Your task to perform on an android device: Search for "logitech g pro" on target, select the first entry, add it to the cart, then select checkout. Image 0: 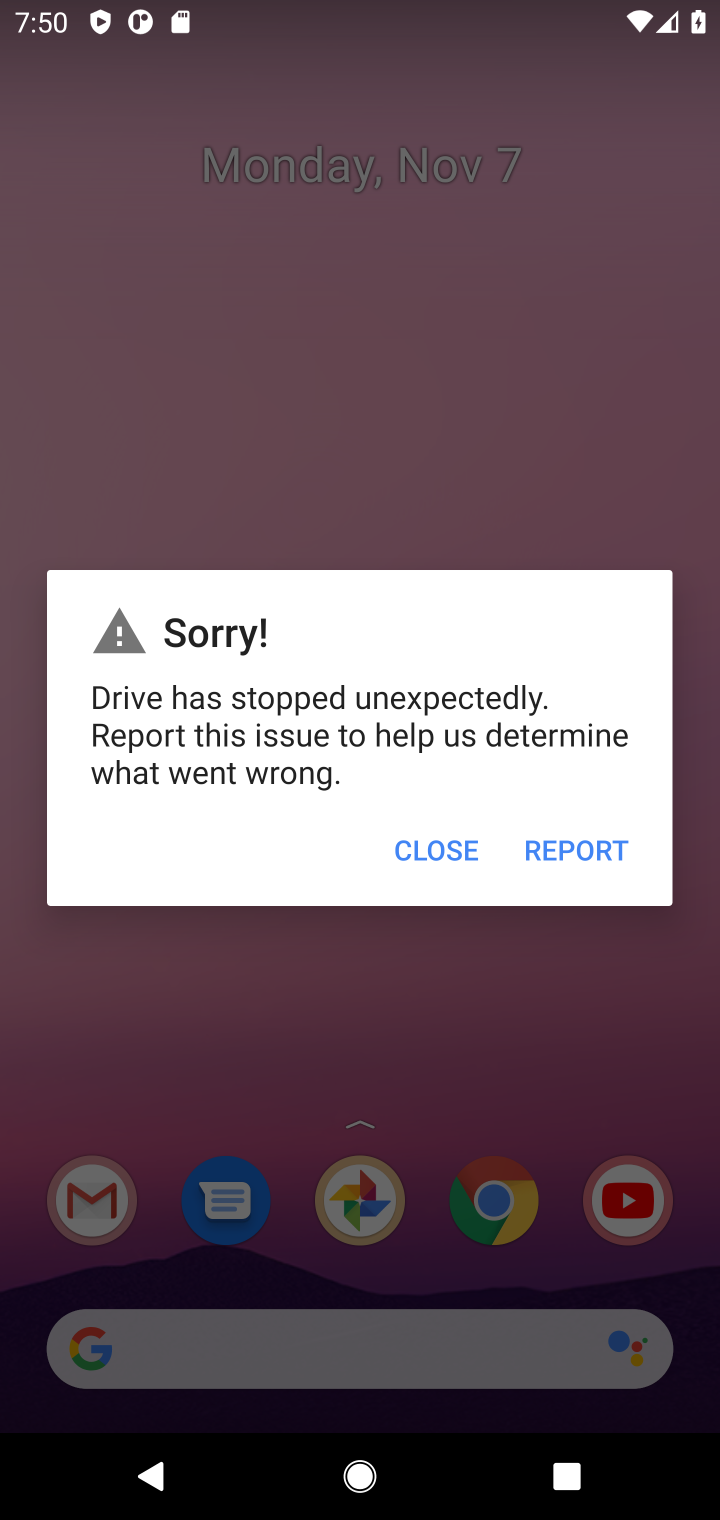
Step 0: press home button
Your task to perform on an android device: Search for "logitech g pro" on target, select the first entry, add it to the cart, then select checkout. Image 1: 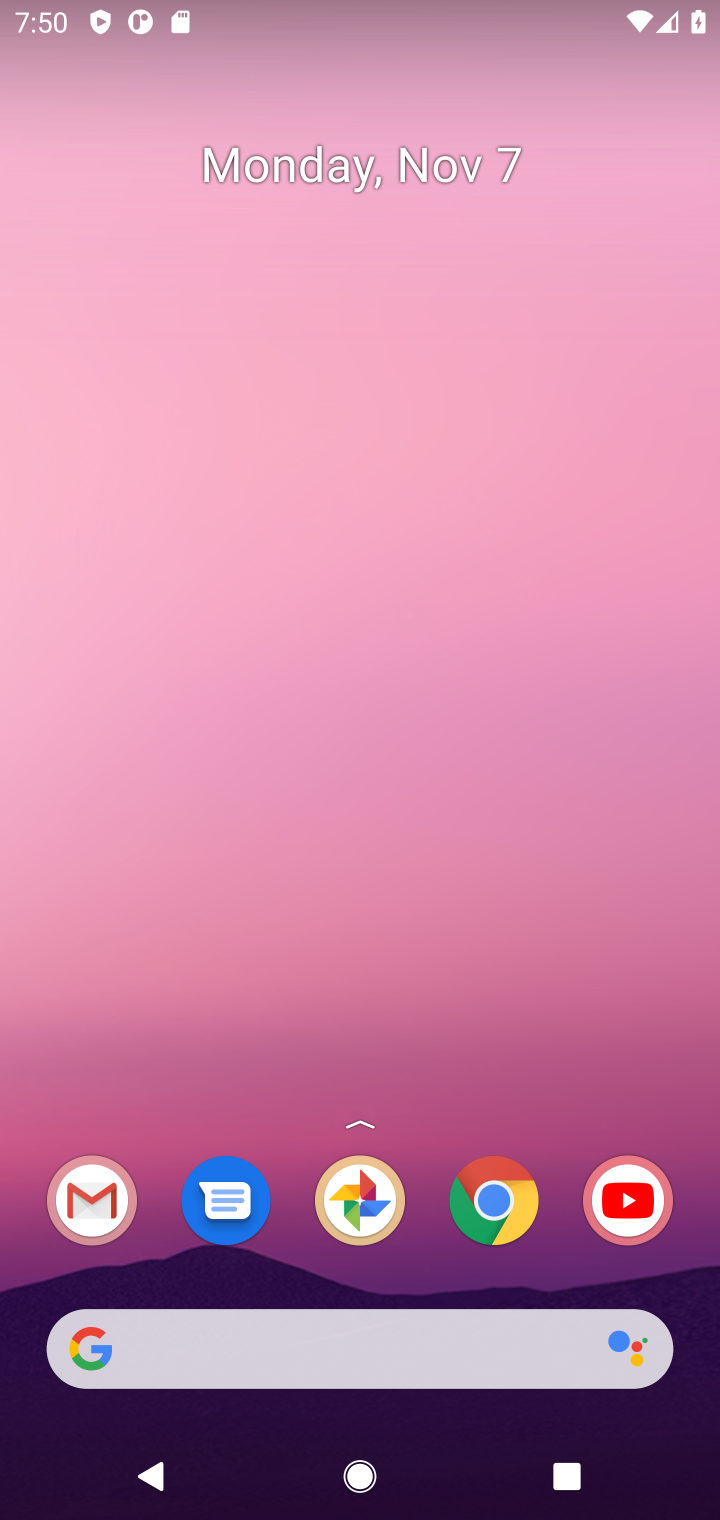
Step 1: click (502, 1205)
Your task to perform on an android device: Search for "logitech g pro" on target, select the first entry, add it to the cart, then select checkout. Image 2: 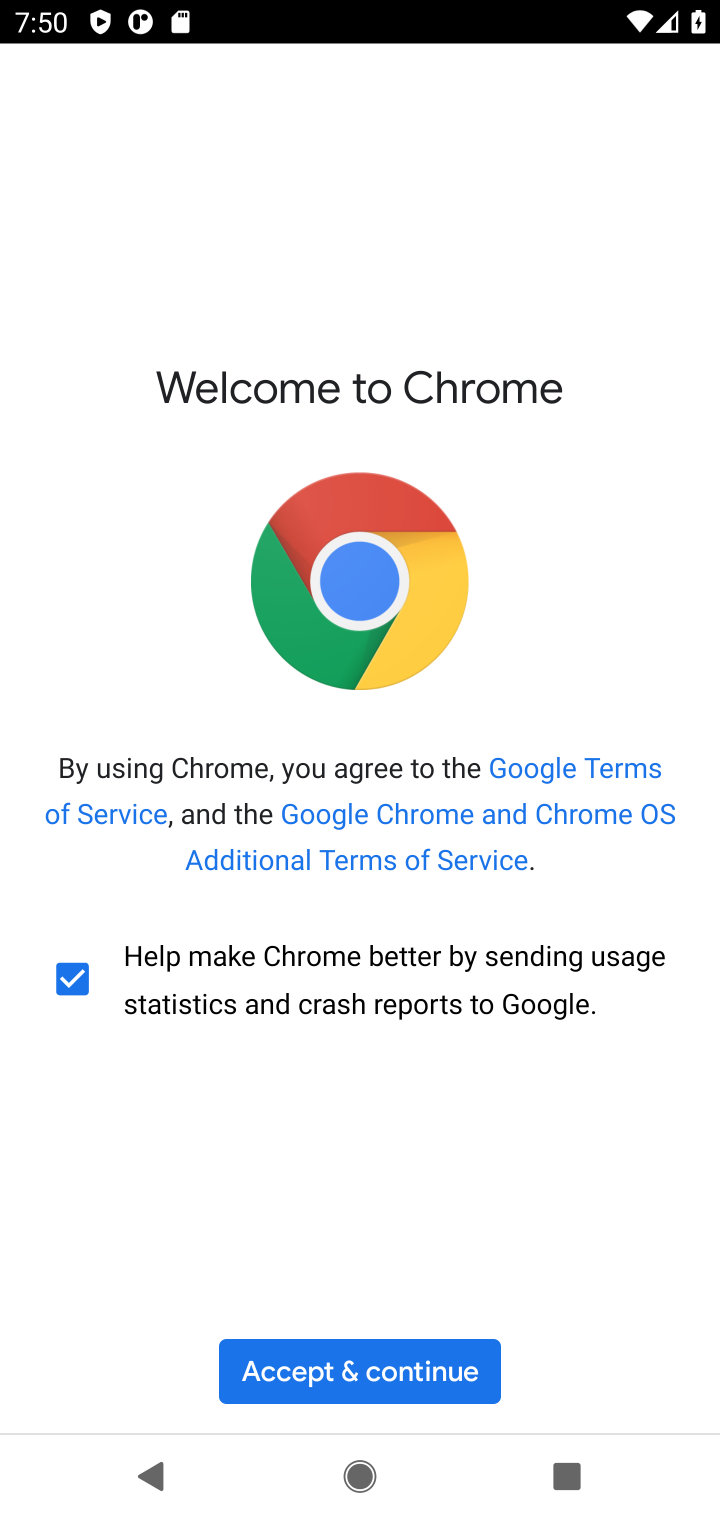
Step 2: click (434, 1372)
Your task to perform on an android device: Search for "logitech g pro" on target, select the first entry, add it to the cart, then select checkout. Image 3: 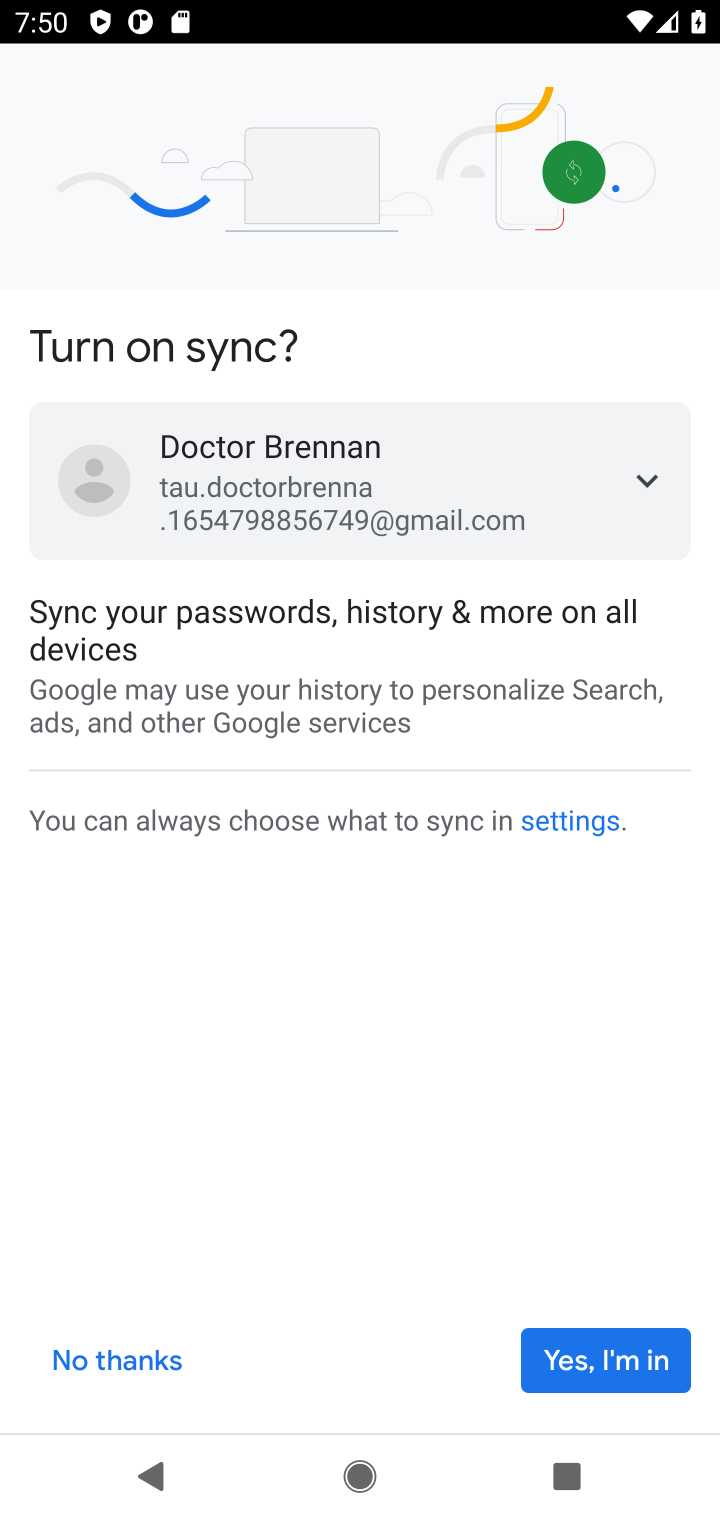
Step 3: click (589, 1365)
Your task to perform on an android device: Search for "logitech g pro" on target, select the first entry, add it to the cart, then select checkout. Image 4: 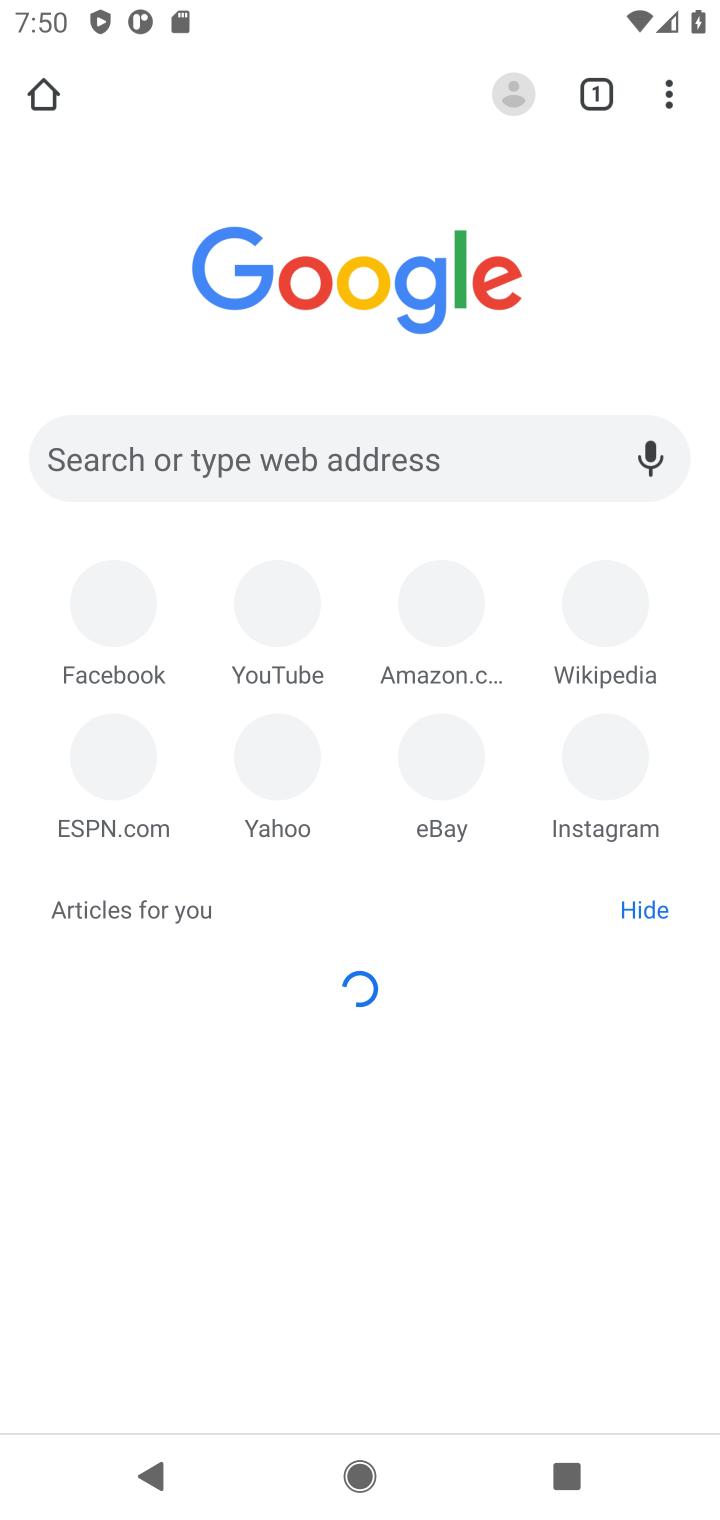
Step 4: click (458, 469)
Your task to perform on an android device: Search for "logitech g pro" on target, select the first entry, add it to the cart, then select checkout. Image 5: 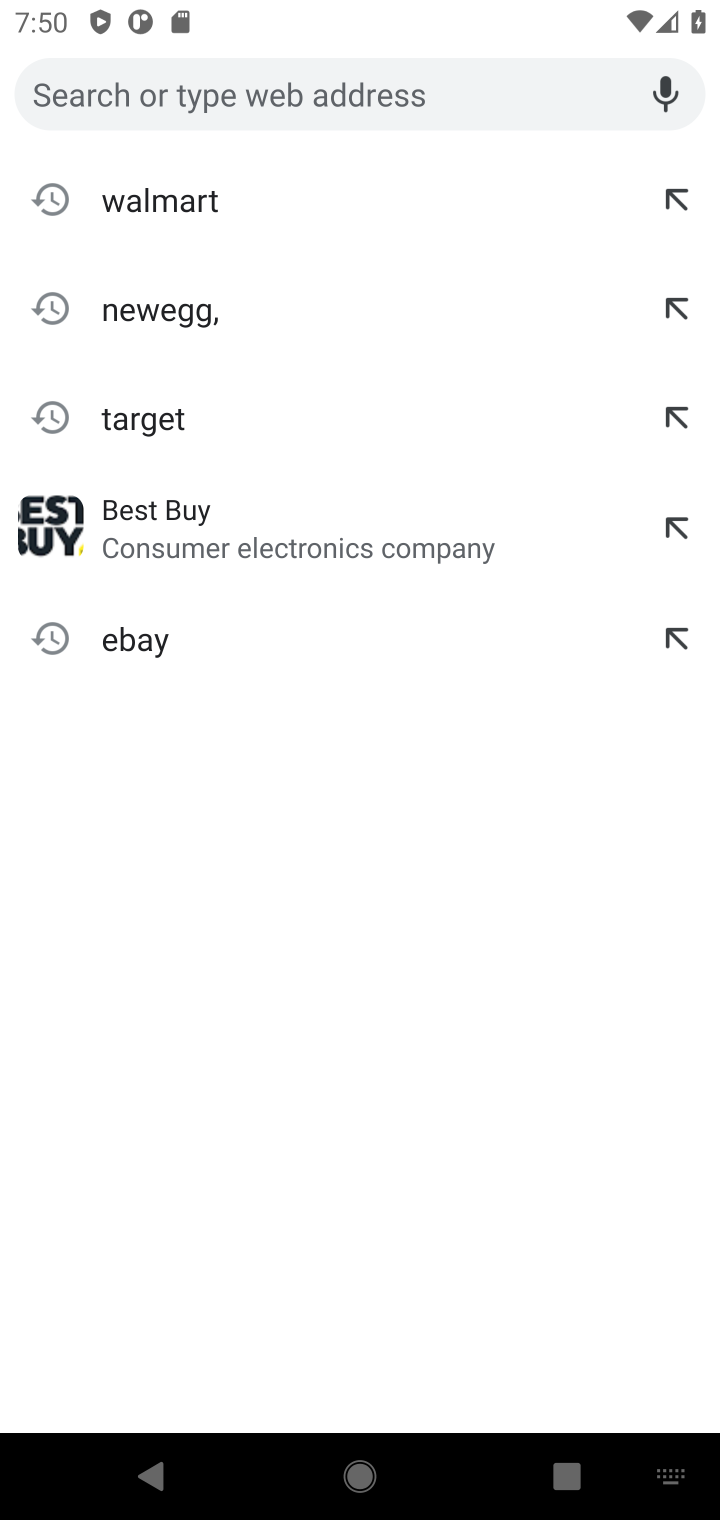
Step 5: click (133, 411)
Your task to perform on an android device: Search for "logitech g pro" on target, select the first entry, add it to the cart, then select checkout. Image 6: 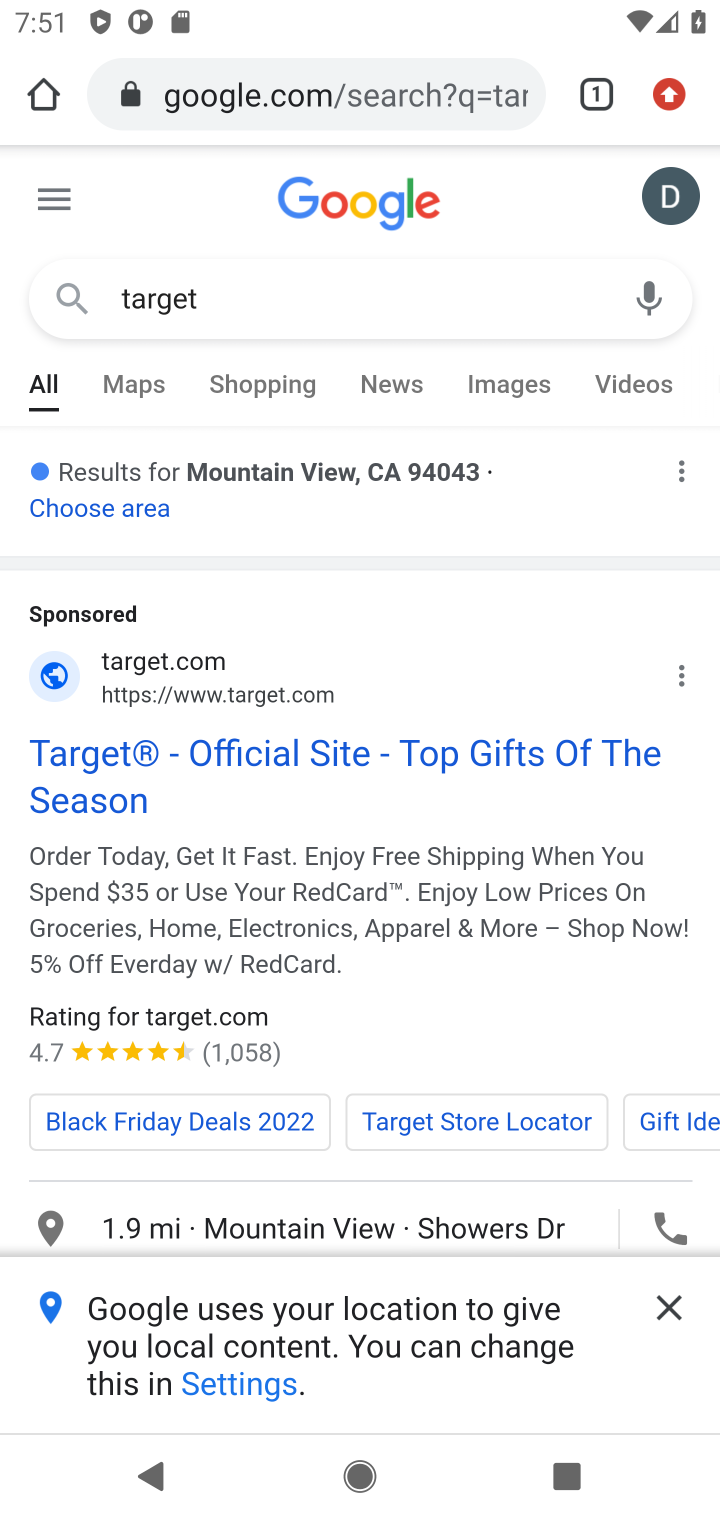
Step 6: click (177, 768)
Your task to perform on an android device: Search for "logitech g pro" on target, select the first entry, add it to the cart, then select checkout. Image 7: 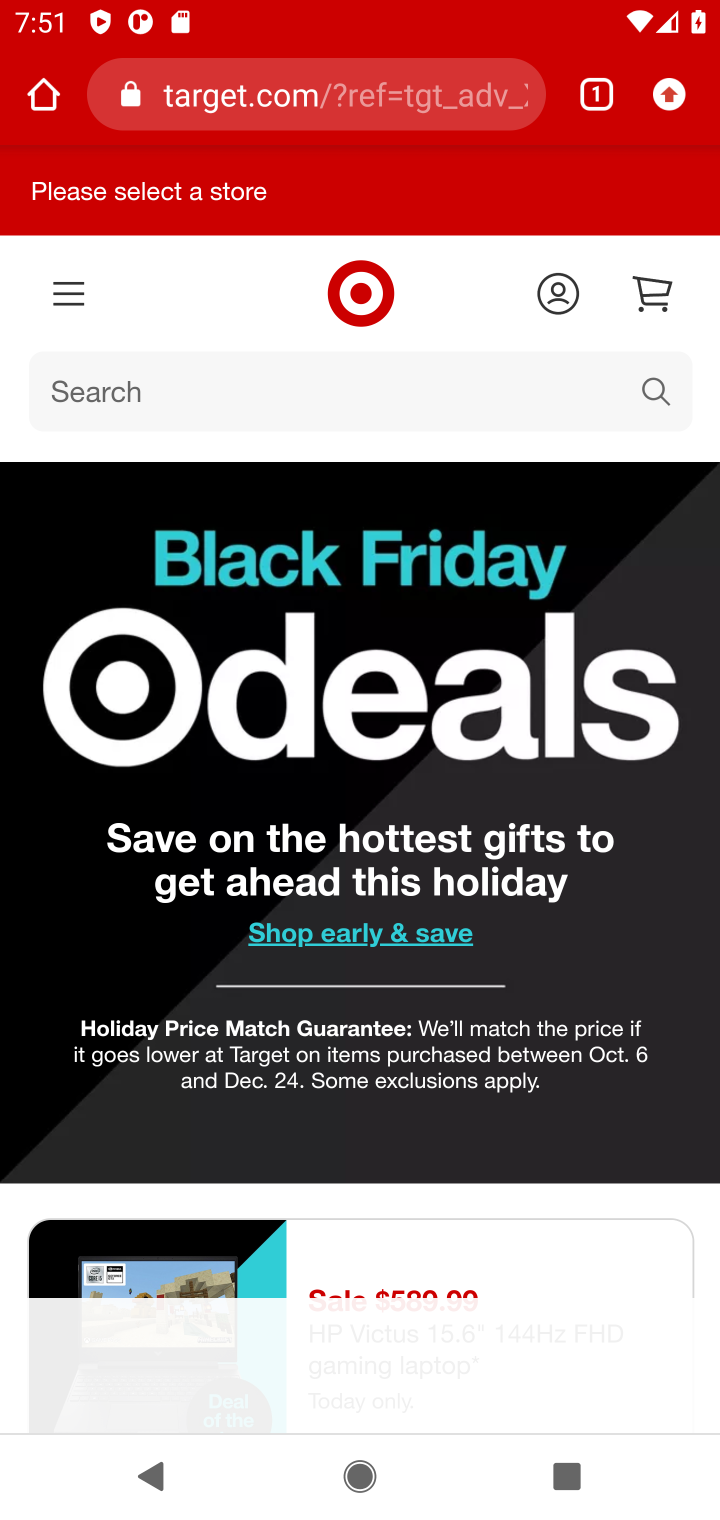
Step 7: click (281, 398)
Your task to perform on an android device: Search for "logitech g pro" on target, select the first entry, add it to the cart, then select checkout. Image 8: 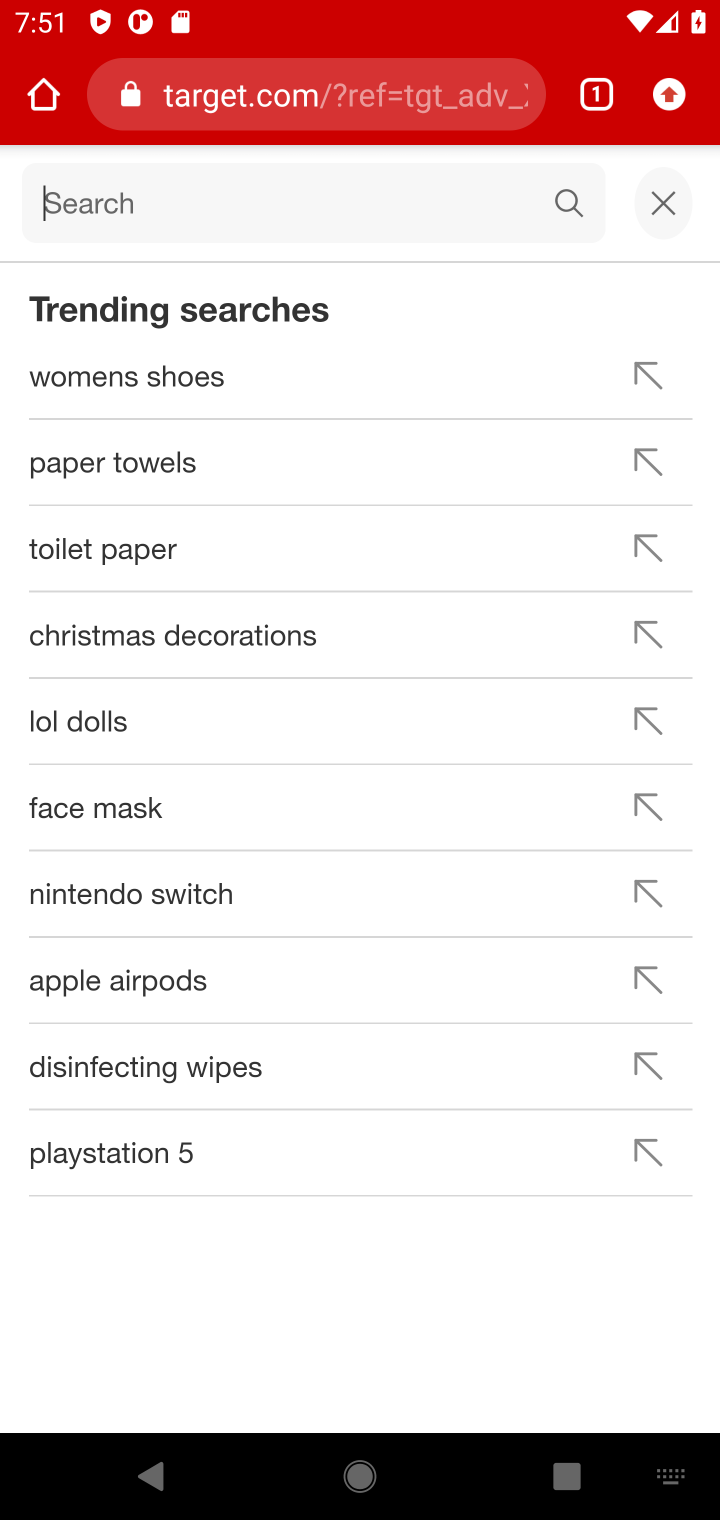
Step 8: type "logitech g pro"
Your task to perform on an android device: Search for "logitech g pro" on target, select the first entry, add it to the cart, then select checkout. Image 9: 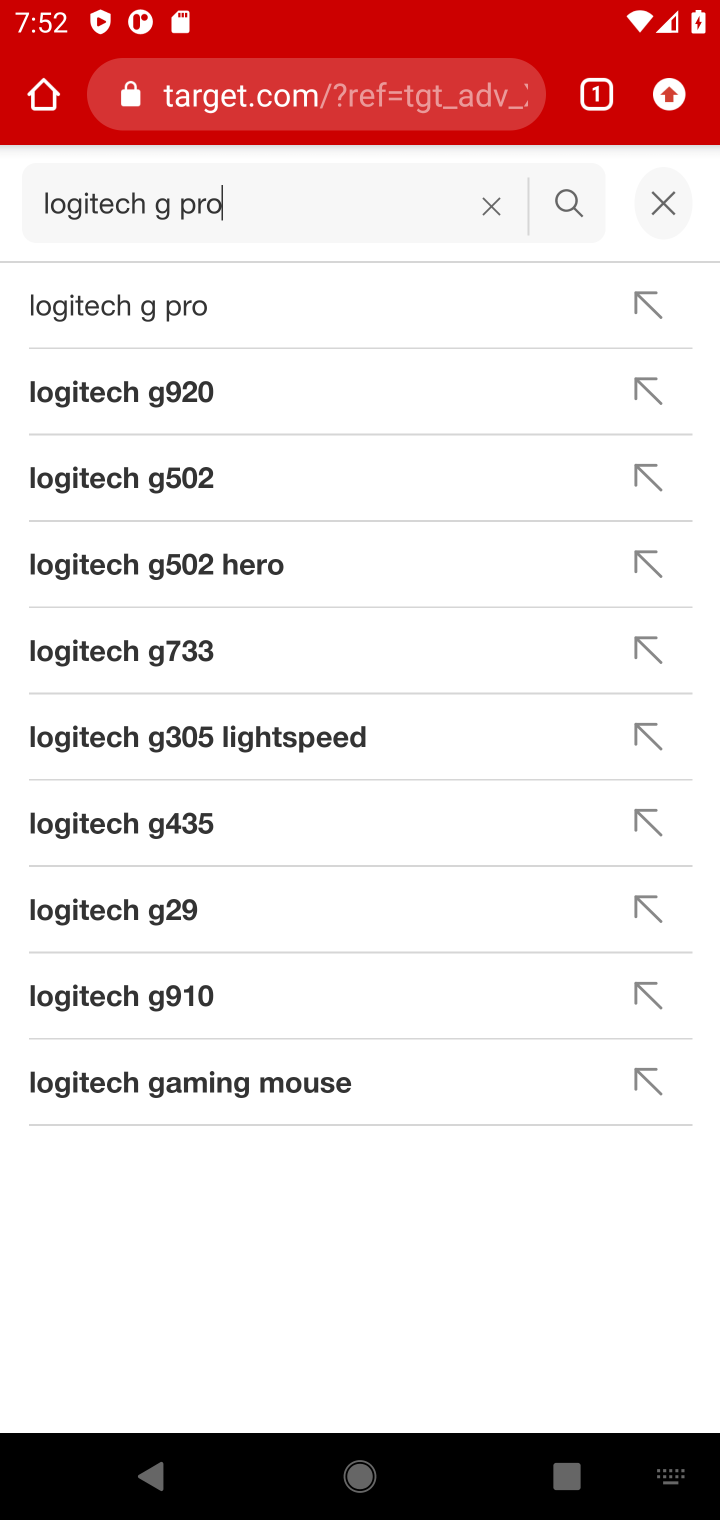
Step 9: press enter
Your task to perform on an android device: Search for "logitech g pro" on target, select the first entry, add it to the cart, then select checkout. Image 10: 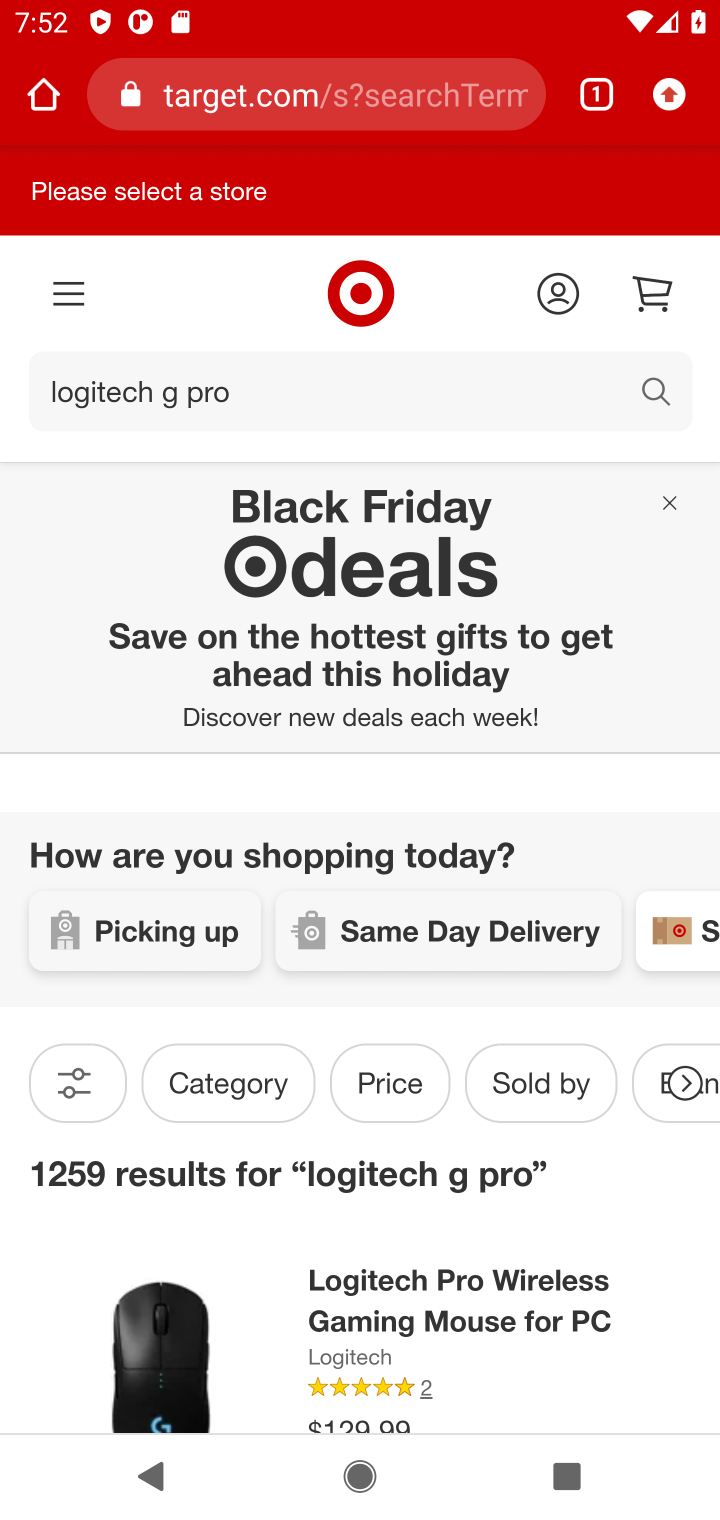
Step 10: click (432, 1305)
Your task to perform on an android device: Search for "logitech g pro" on target, select the first entry, add it to the cart, then select checkout. Image 11: 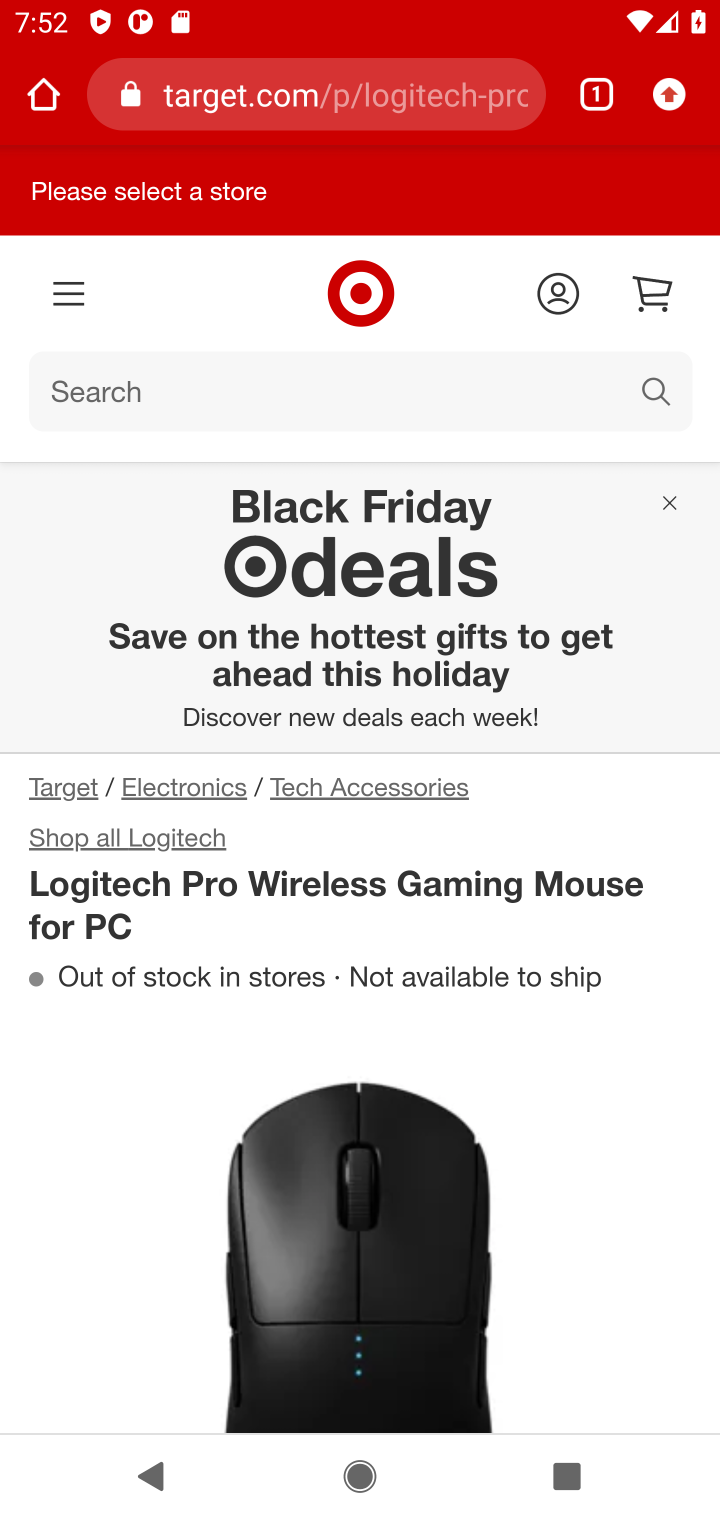
Step 11: drag from (653, 887) to (648, 386)
Your task to perform on an android device: Search for "logitech g pro" on target, select the first entry, add it to the cart, then select checkout. Image 12: 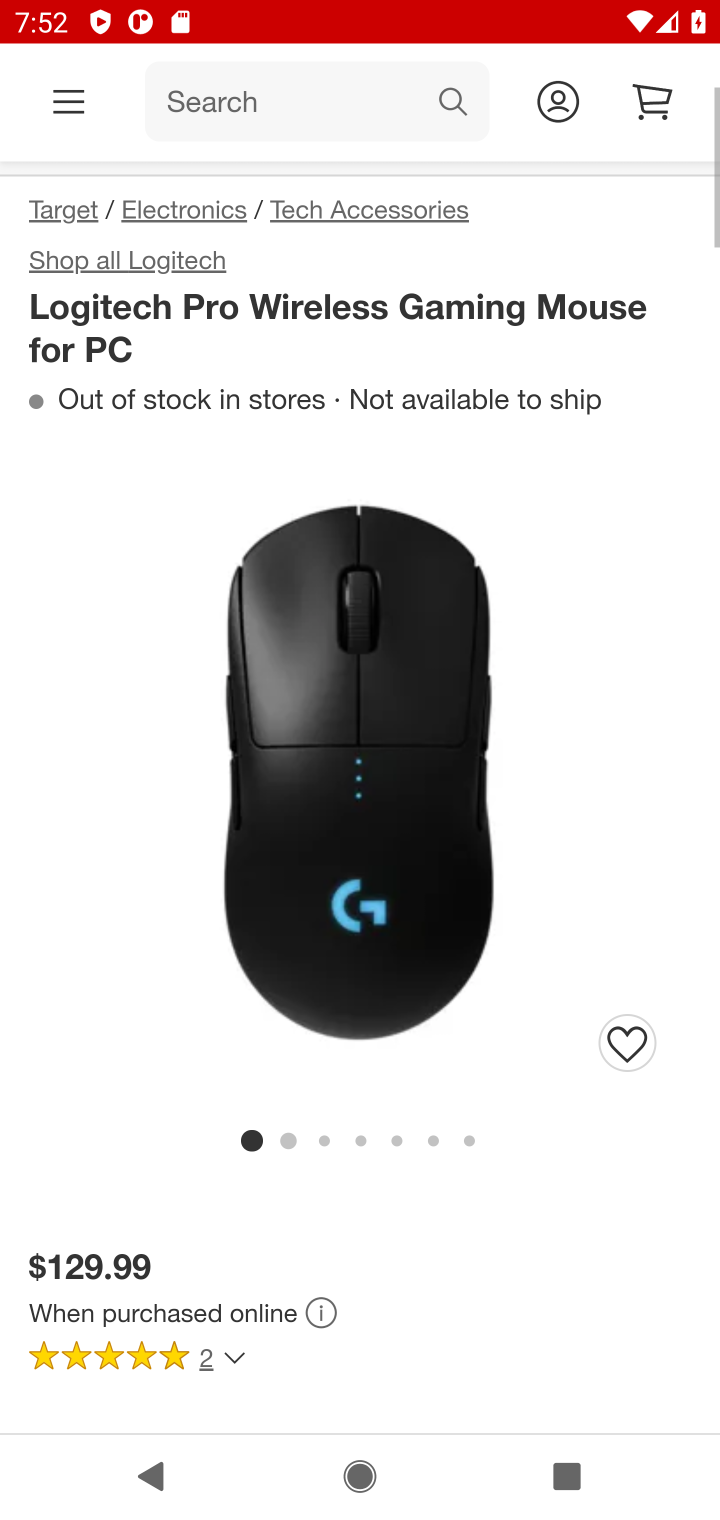
Step 12: drag from (517, 1251) to (603, 603)
Your task to perform on an android device: Search for "logitech g pro" on target, select the first entry, add it to the cart, then select checkout. Image 13: 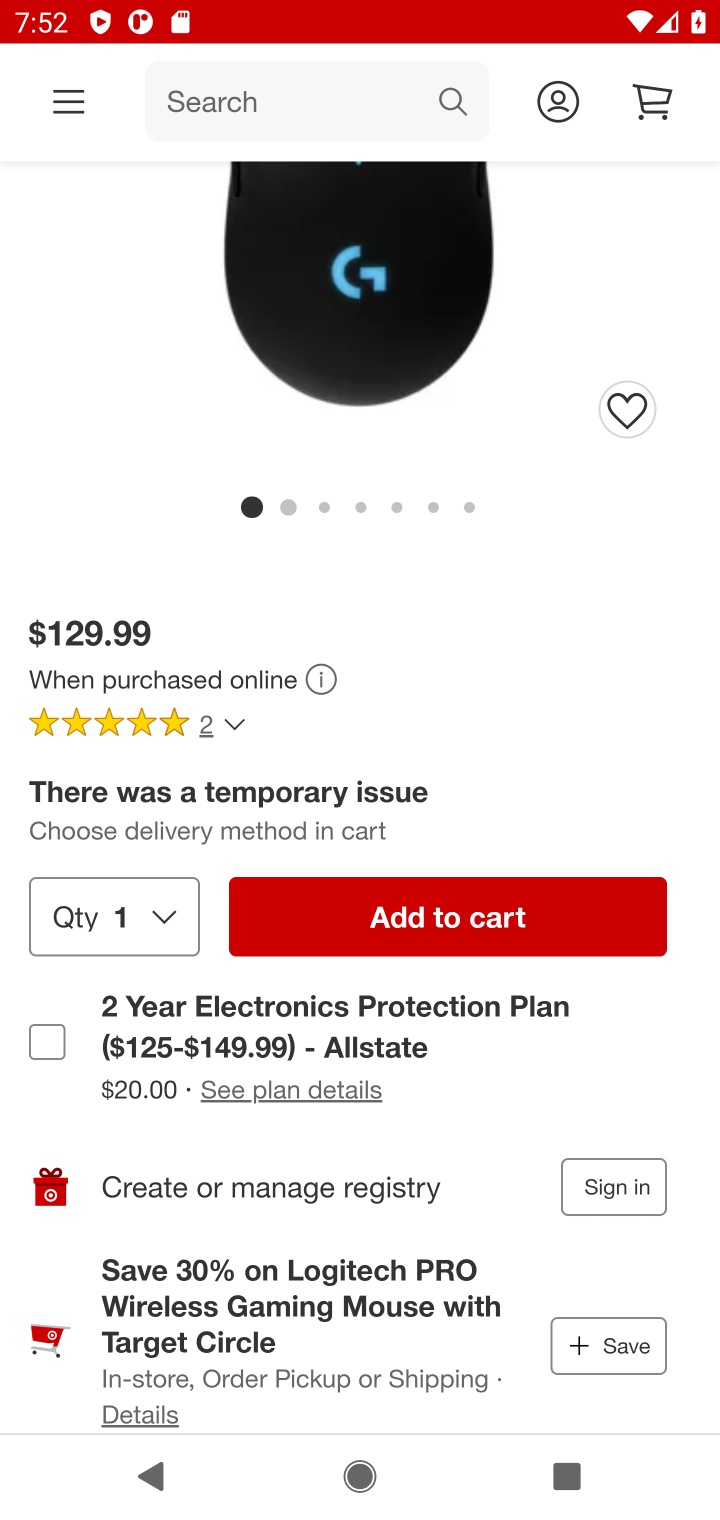
Step 13: click (500, 933)
Your task to perform on an android device: Search for "logitech g pro" on target, select the first entry, add it to the cart, then select checkout. Image 14: 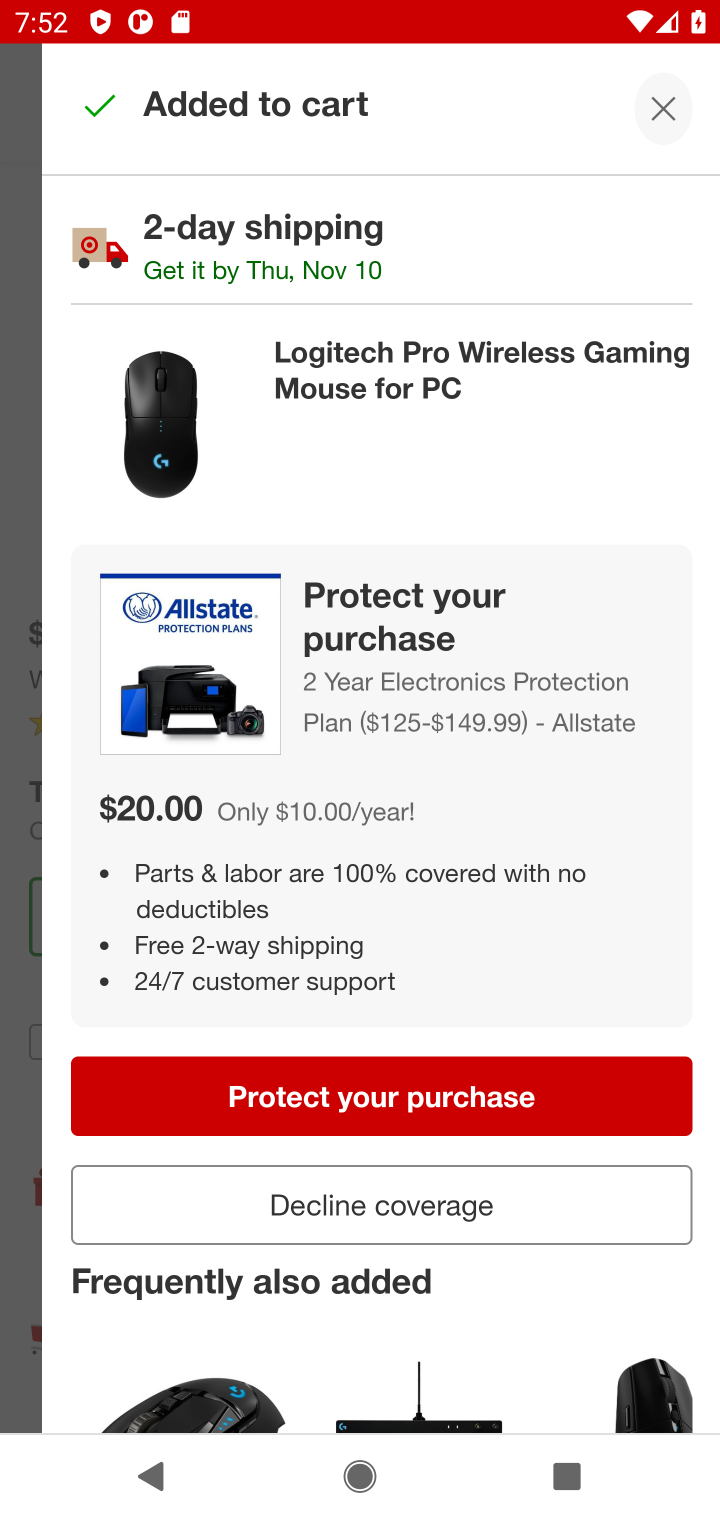
Step 14: drag from (505, 851) to (528, 476)
Your task to perform on an android device: Search for "logitech g pro" on target, select the first entry, add it to the cart, then select checkout. Image 15: 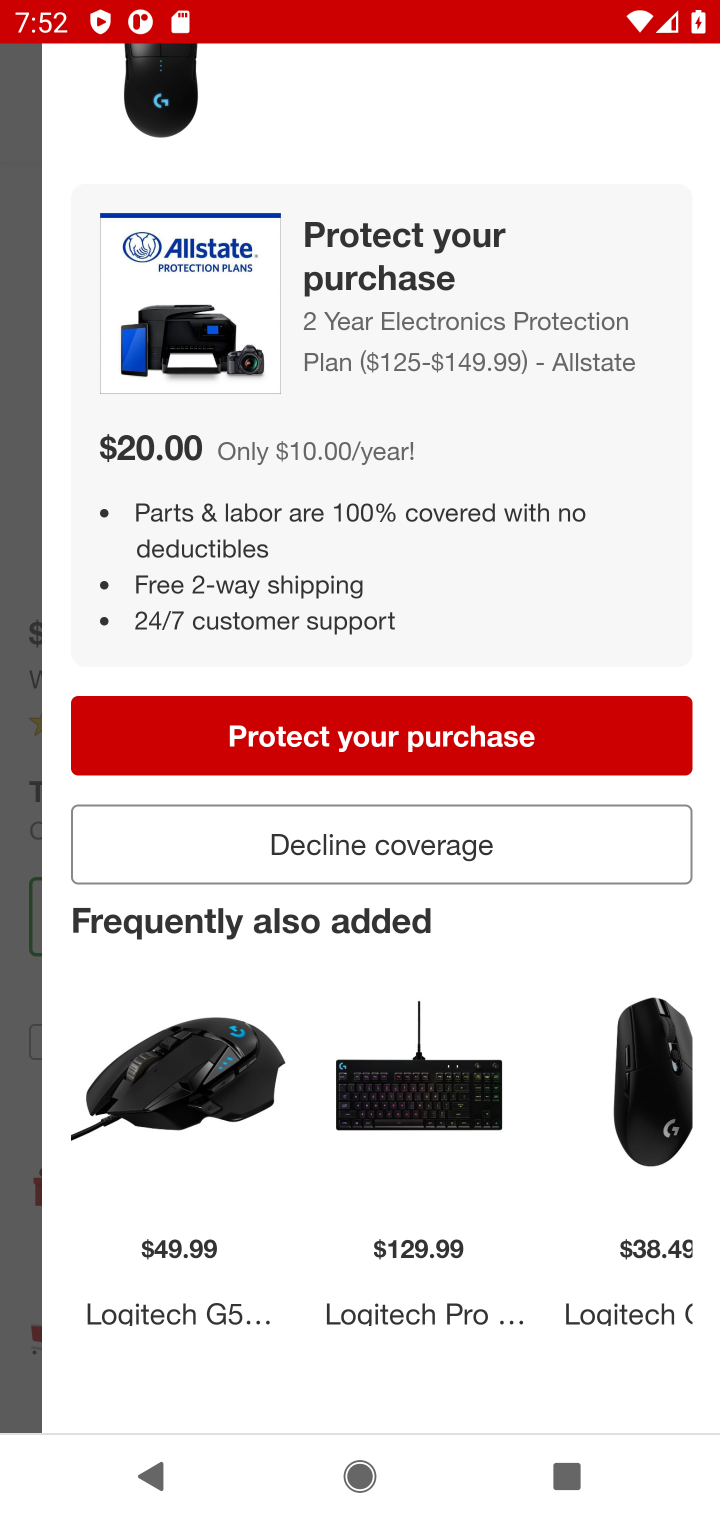
Step 15: drag from (544, 509) to (467, 1407)
Your task to perform on an android device: Search for "logitech g pro" on target, select the first entry, add it to the cart, then select checkout. Image 16: 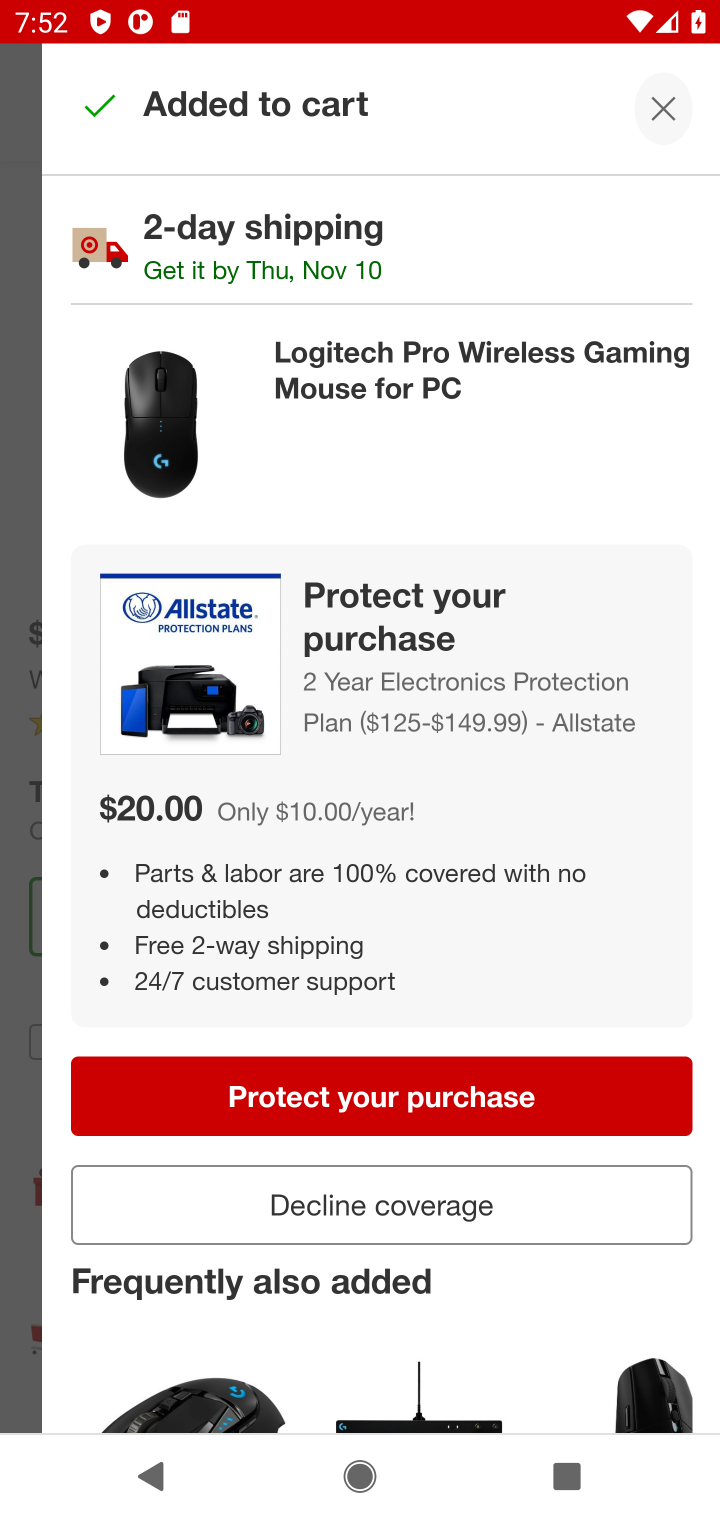
Step 16: drag from (493, 715) to (284, 1519)
Your task to perform on an android device: Search for "logitech g pro" on target, select the first entry, add it to the cart, then select checkout. Image 17: 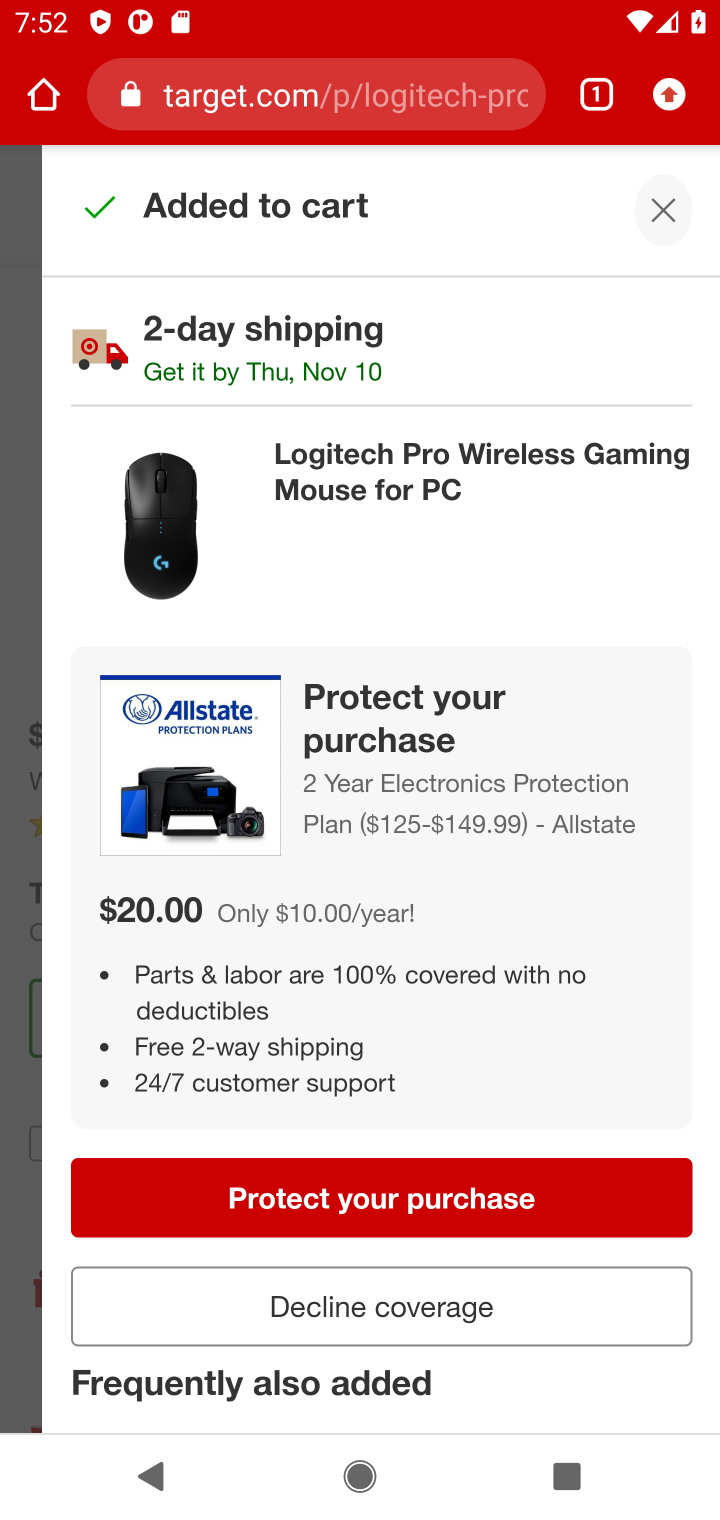
Step 17: click (379, 1227)
Your task to perform on an android device: Search for "logitech g pro" on target, select the first entry, add it to the cart, then select checkout. Image 18: 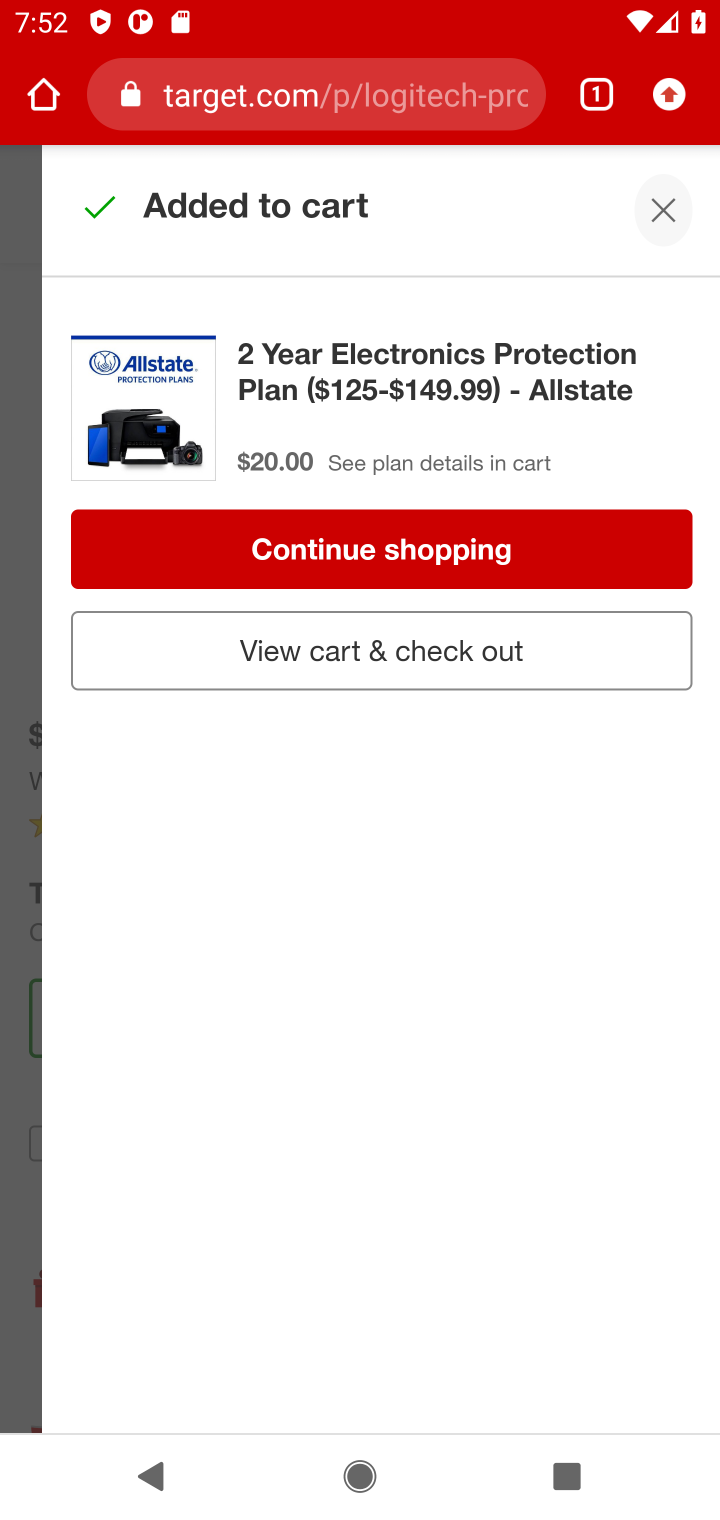
Step 18: click (394, 649)
Your task to perform on an android device: Search for "logitech g pro" on target, select the first entry, add it to the cart, then select checkout. Image 19: 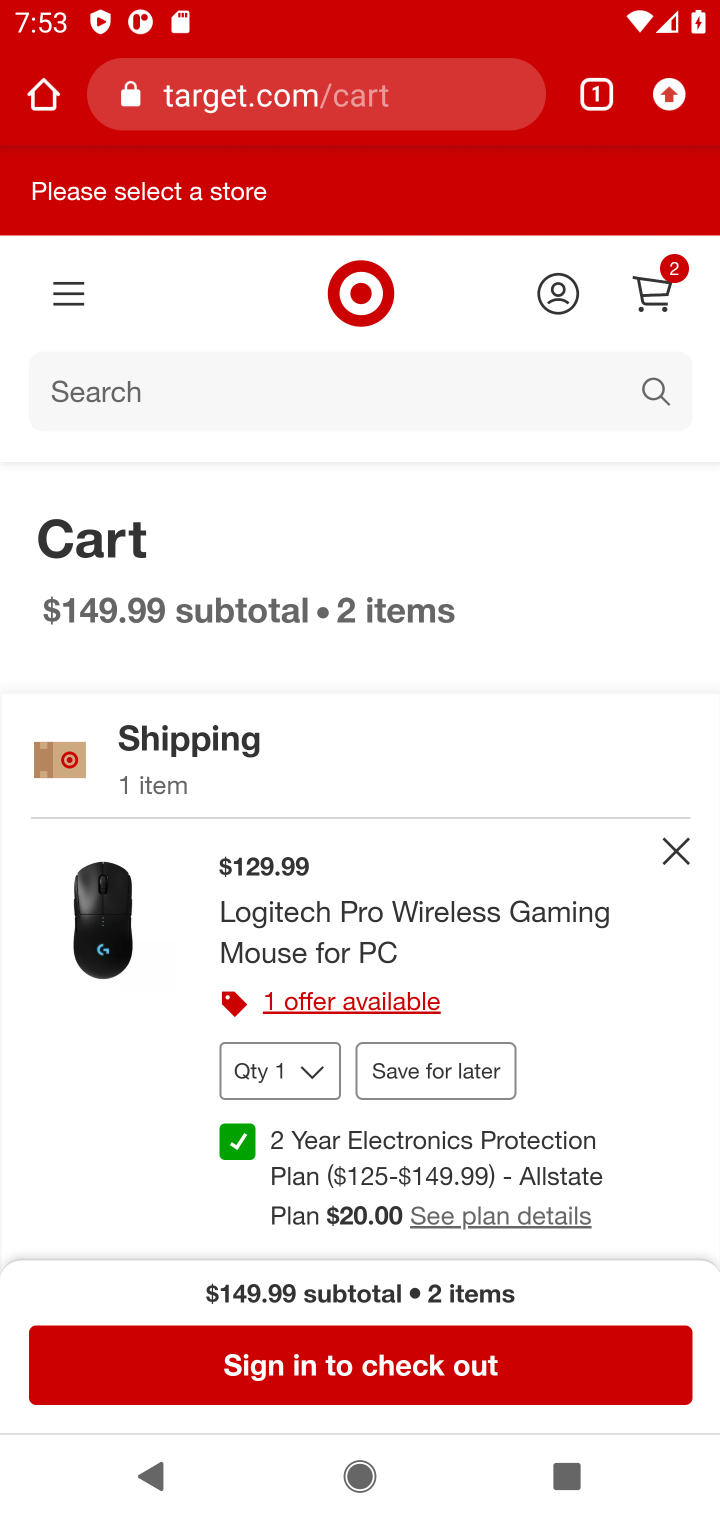
Step 19: click (614, 1403)
Your task to perform on an android device: Search for "logitech g pro" on target, select the first entry, add it to the cart, then select checkout. Image 20: 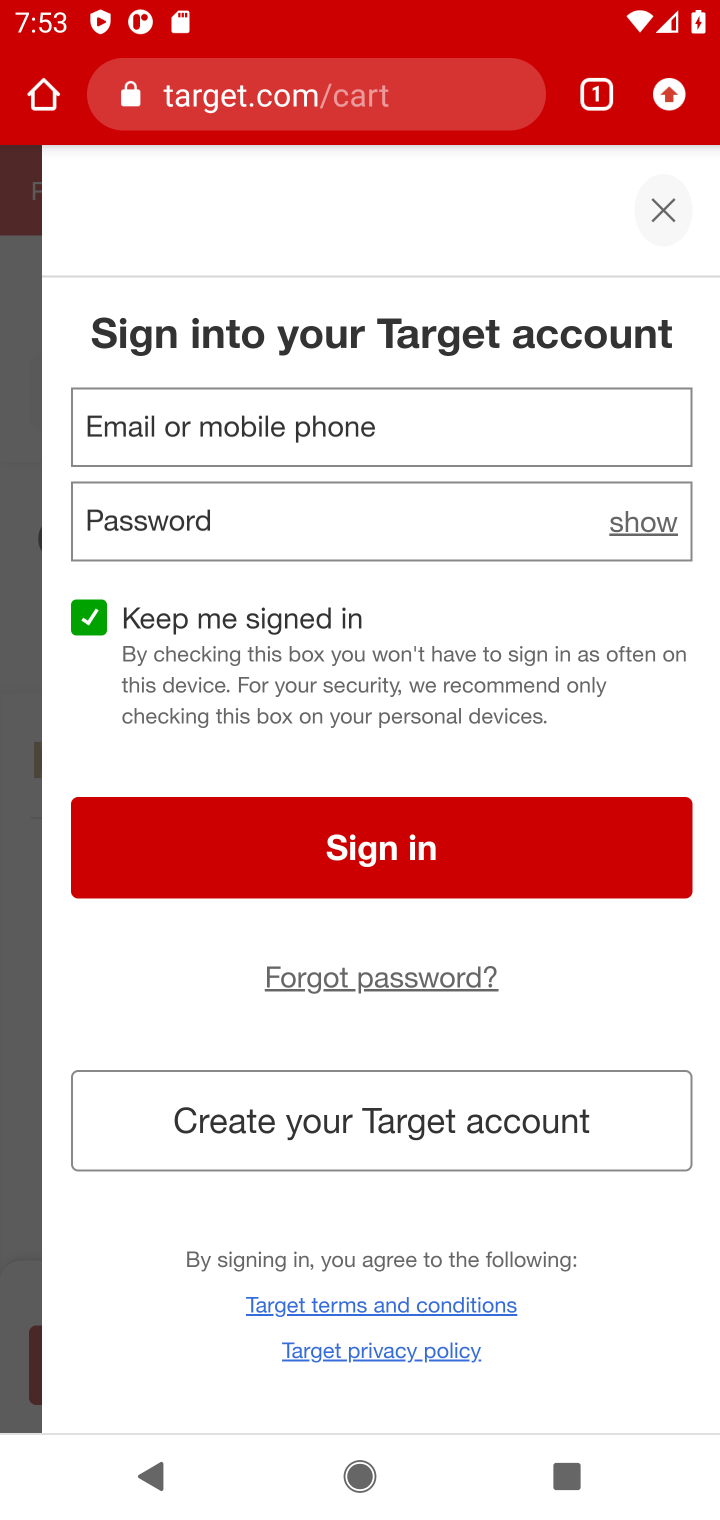
Step 20: task complete